Your task to perform on an android device: toggle location history Image 0: 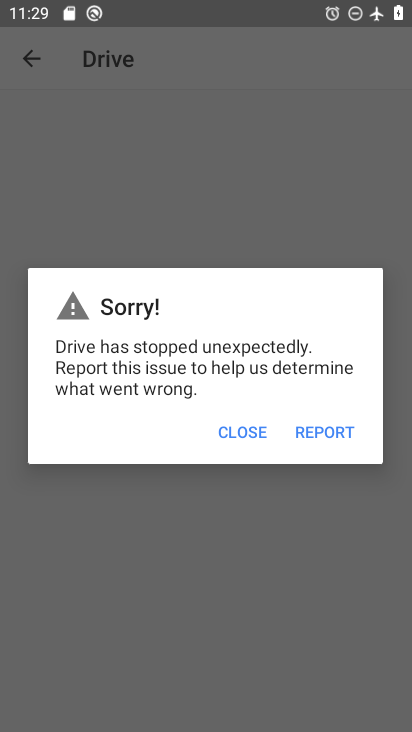
Step 0: press home button
Your task to perform on an android device: toggle location history Image 1: 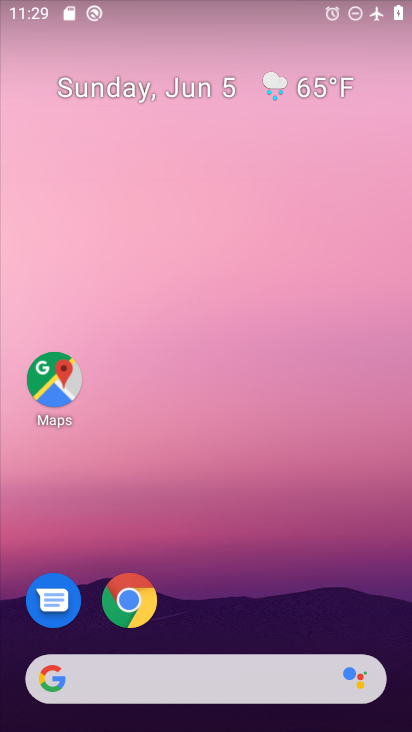
Step 1: drag from (378, 622) to (229, 17)
Your task to perform on an android device: toggle location history Image 2: 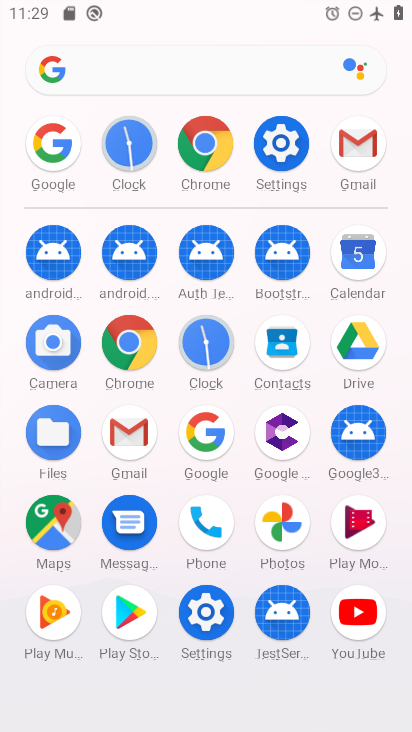
Step 2: click (270, 140)
Your task to perform on an android device: toggle location history Image 3: 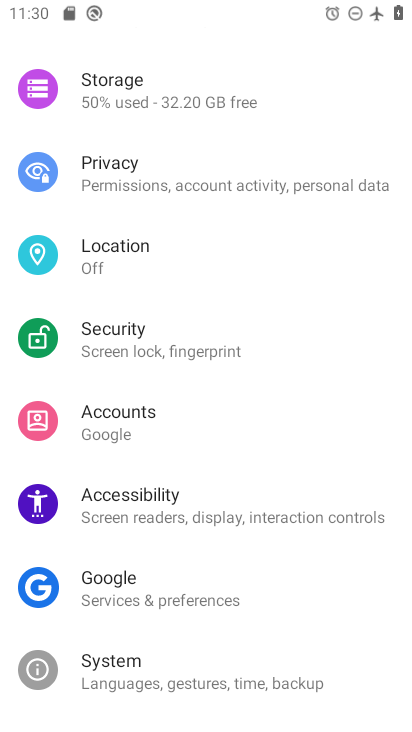
Step 3: click (121, 260)
Your task to perform on an android device: toggle location history Image 4: 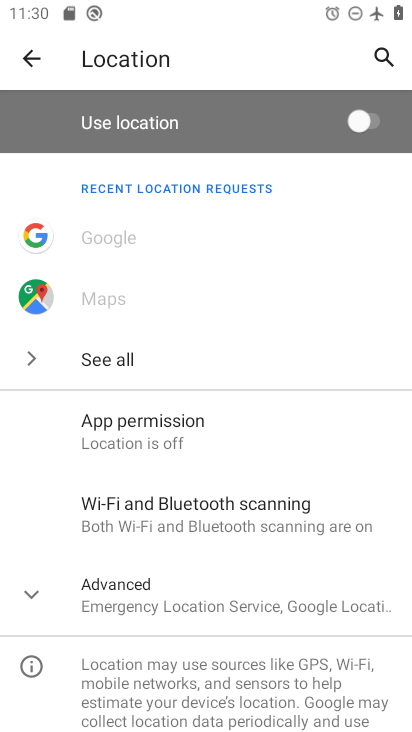
Step 4: click (166, 607)
Your task to perform on an android device: toggle location history Image 5: 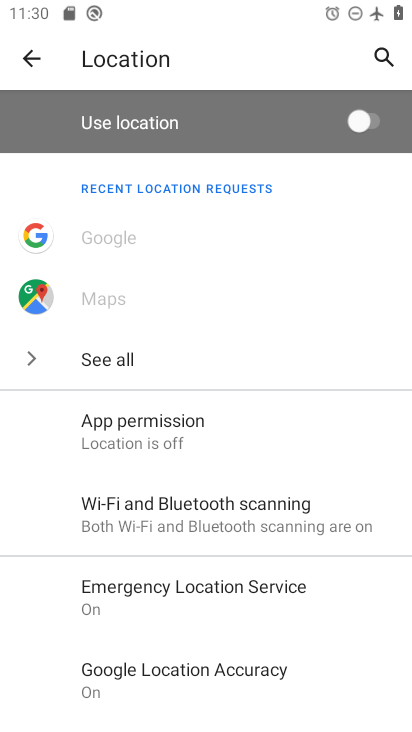
Step 5: drag from (249, 699) to (240, 177)
Your task to perform on an android device: toggle location history Image 6: 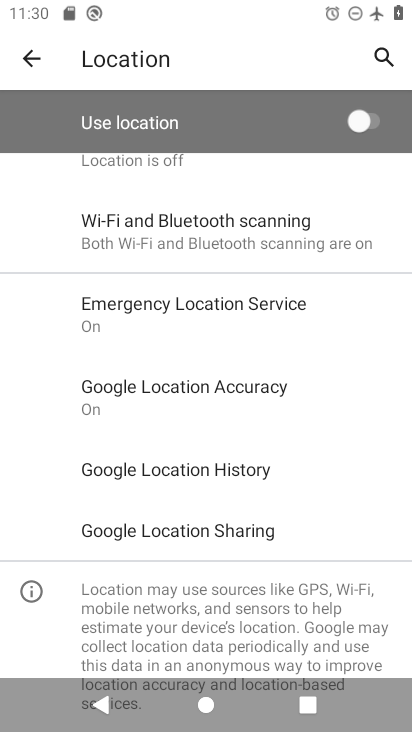
Step 6: click (195, 460)
Your task to perform on an android device: toggle location history Image 7: 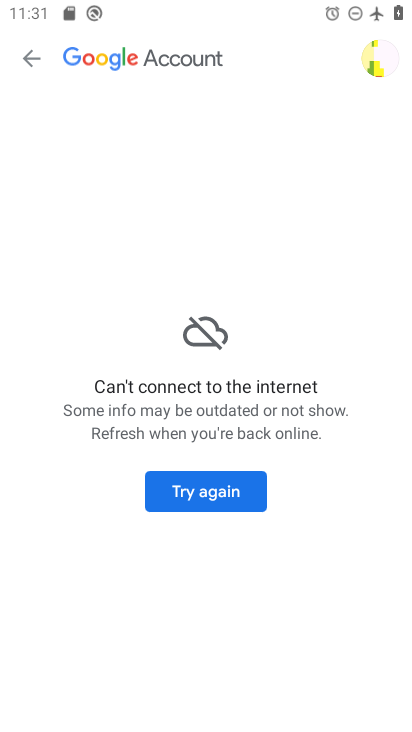
Step 7: task complete